Your task to perform on an android device: turn off javascript in the chrome app Image 0: 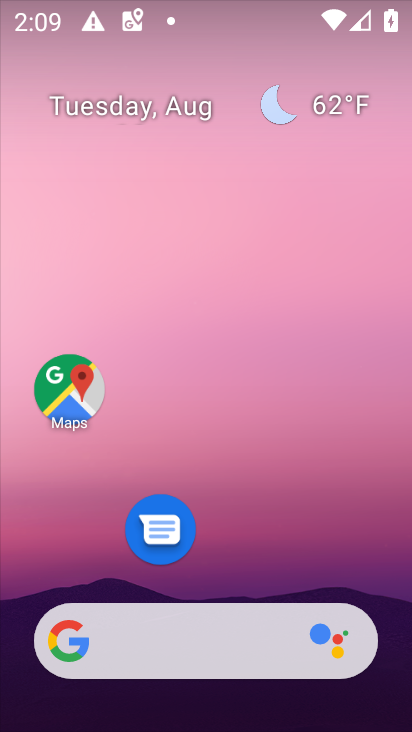
Step 0: drag from (269, 593) to (274, 55)
Your task to perform on an android device: turn off javascript in the chrome app Image 1: 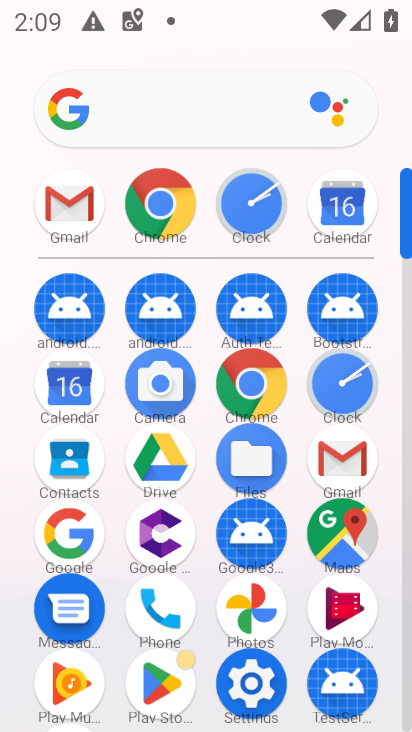
Step 1: click (148, 232)
Your task to perform on an android device: turn off javascript in the chrome app Image 2: 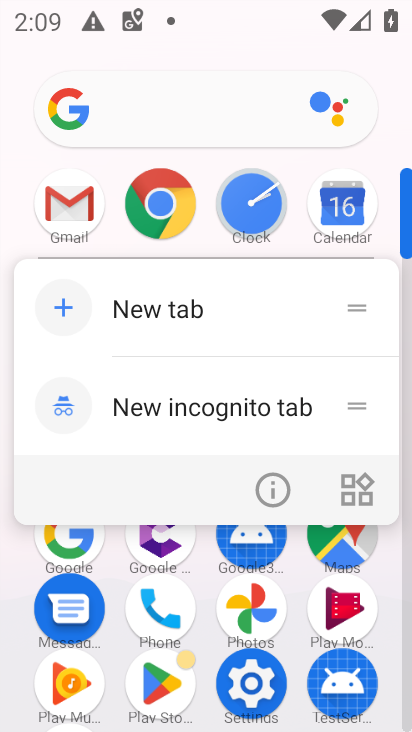
Step 2: click (149, 226)
Your task to perform on an android device: turn off javascript in the chrome app Image 3: 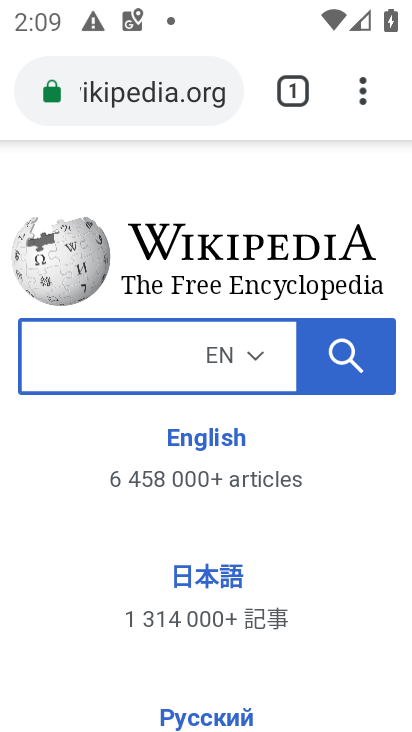
Step 3: click (369, 126)
Your task to perform on an android device: turn off javascript in the chrome app Image 4: 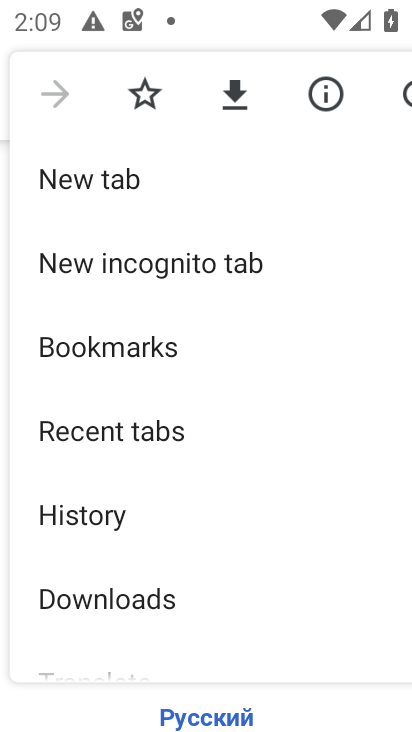
Step 4: drag from (138, 524) to (141, 246)
Your task to perform on an android device: turn off javascript in the chrome app Image 5: 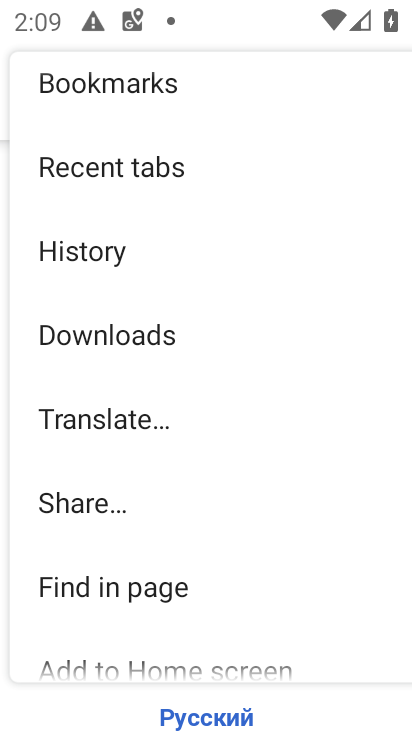
Step 5: drag from (172, 640) to (167, 417)
Your task to perform on an android device: turn off javascript in the chrome app Image 6: 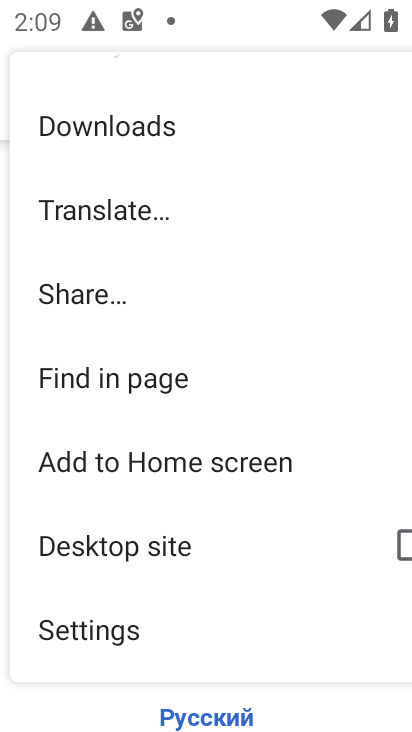
Step 6: click (185, 628)
Your task to perform on an android device: turn off javascript in the chrome app Image 7: 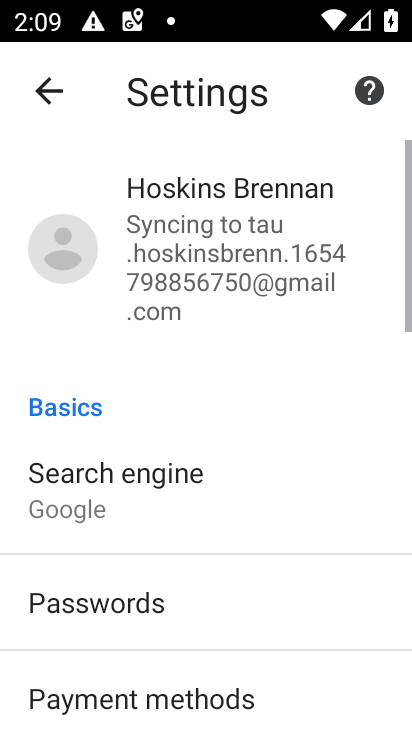
Step 7: drag from (185, 628) to (190, 200)
Your task to perform on an android device: turn off javascript in the chrome app Image 8: 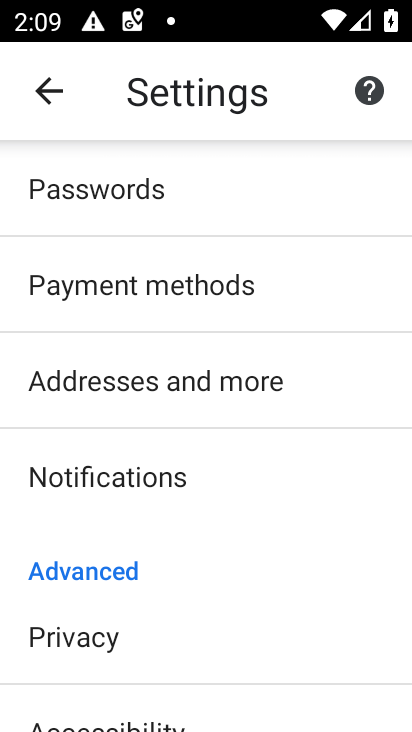
Step 8: drag from (211, 674) to (242, 325)
Your task to perform on an android device: turn off javascript in the chrome app Image 9: 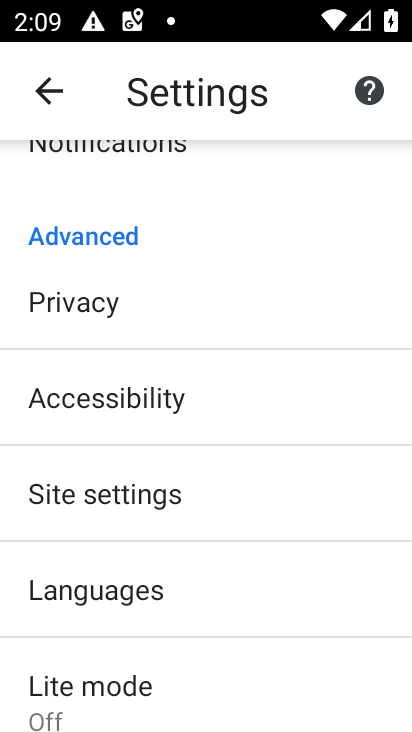
Step 9: click (247, 489)
Your task to perform on an android device: turn off javascript in the chrome app Image 10: 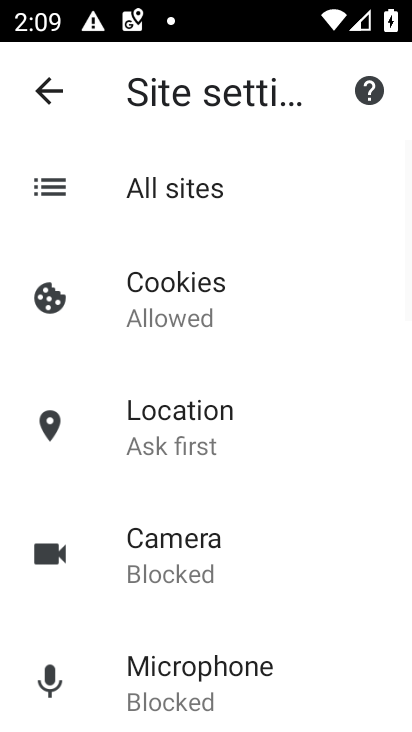
Step 10: drag from (259, 621) to (263, 292)
Your task to perform on an android device: turn off javascript in the chrome app Image 11: 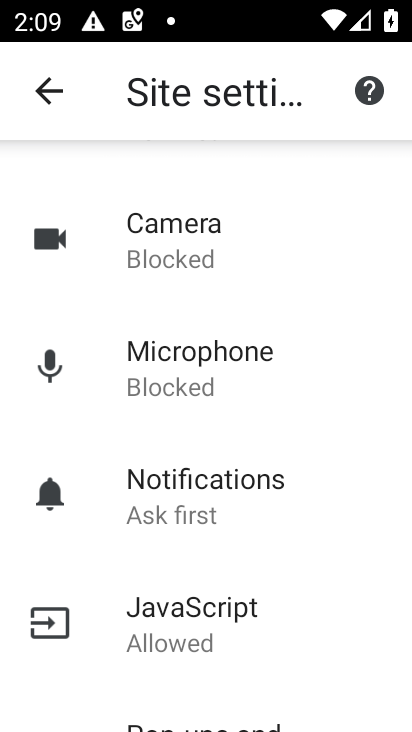
Step 11: click (242, 595)
Your task to perform on an android device: turn off javascript in the chrome app Image 12: 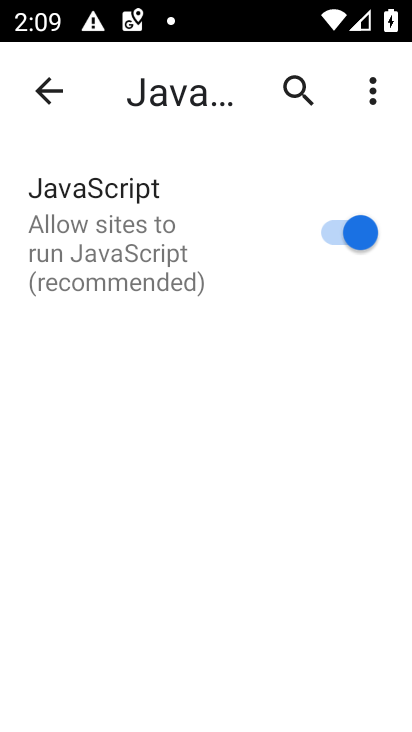
Step 12: click (351, 238)
Your task to perform on an android device: turn off javascript in the chrome app Image 13: 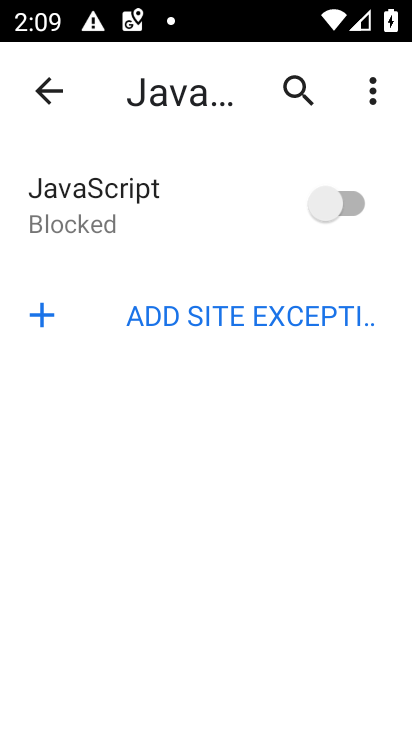
Step 13: task complete